Your task to perform on an android device: toggle wifi Image 0: 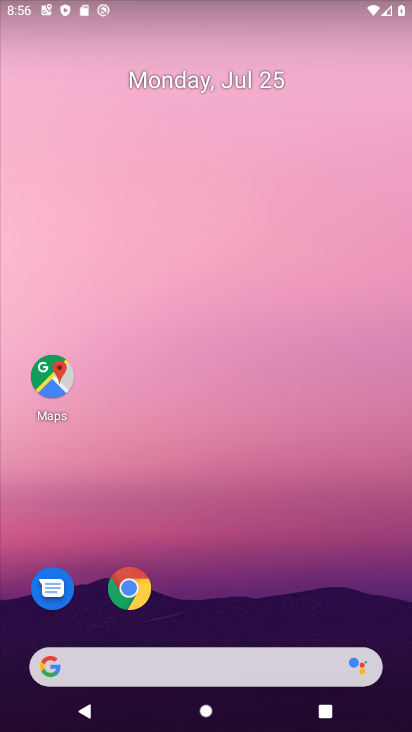
Step 0: drag from (223, 643) to (241, 161)
Your task to perform on an android device: toggle wifi Image 1: 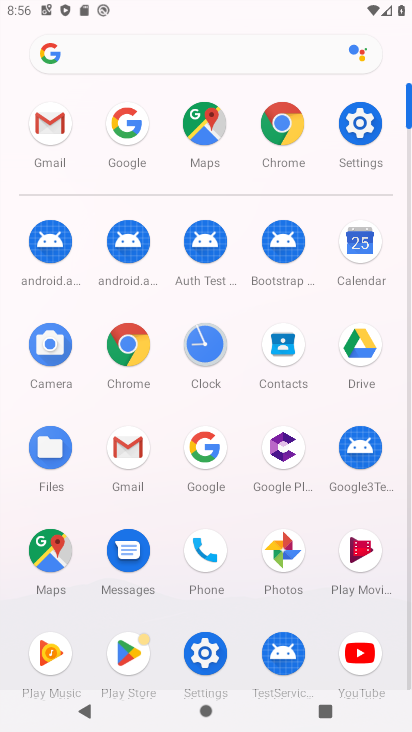
Step 1: click (365, 125)
Your task to perform on an android device: toggle wifi Image 2: 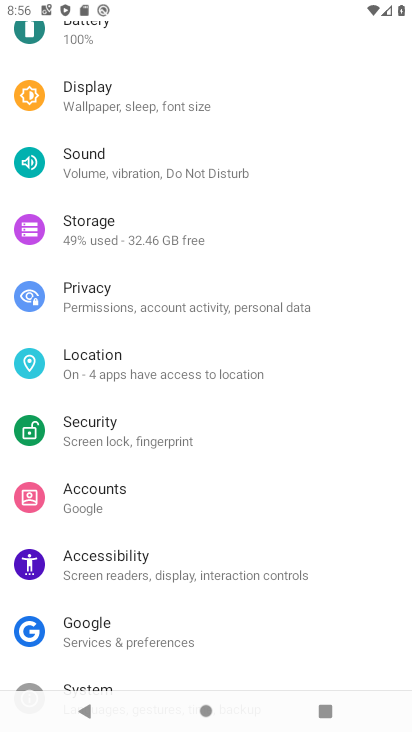
Step 2: drag from (127, 64) to (183, 440)
Your task to perform on an android device: toggle wifi Image 3: 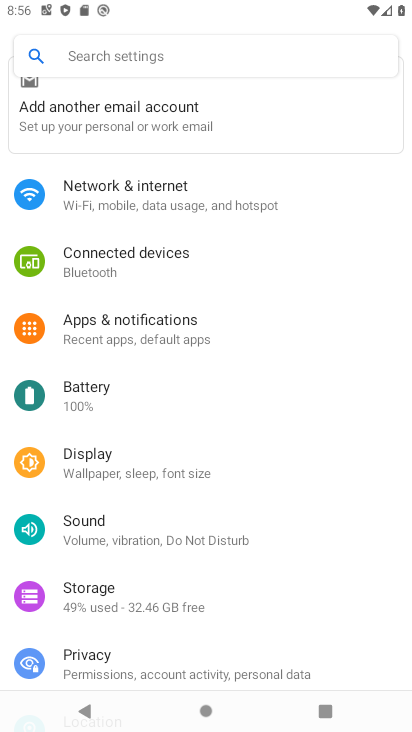
Step 3: click (164, 197)
Your task to perform on an android device: toggle wifi Image 4: 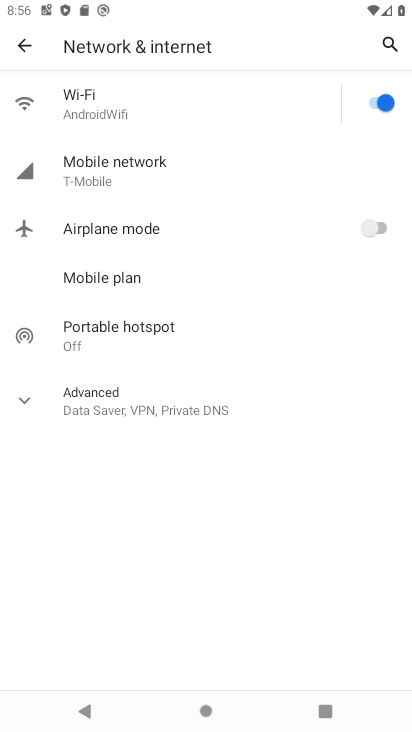
Step 4: click (376, 98)
Your task to perform on an android device: toggle wifi Image 5: 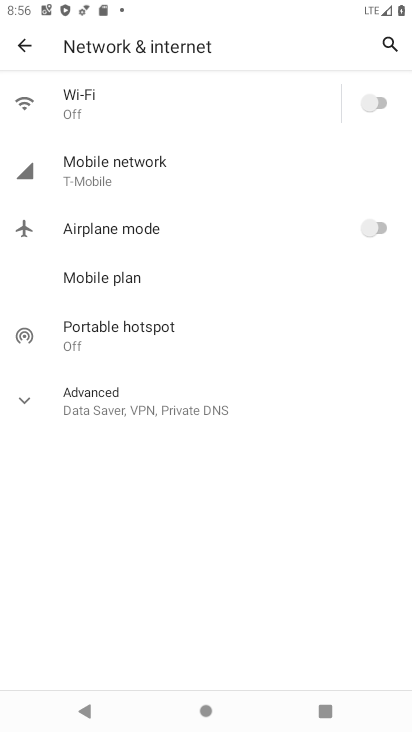
Step 5: task complete